Your task to perform on an android device: Search for Italian restaurants on Maps Image 0: 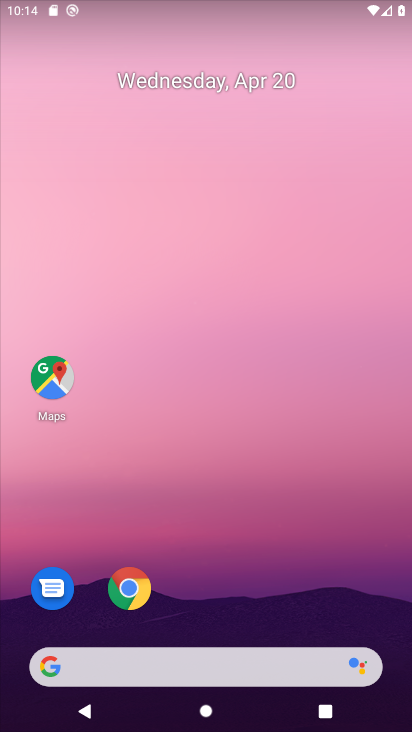
Step 0: click (45, 374)
Your task to perform on an android device: Search for Italian restaurants on Maps Image 1: 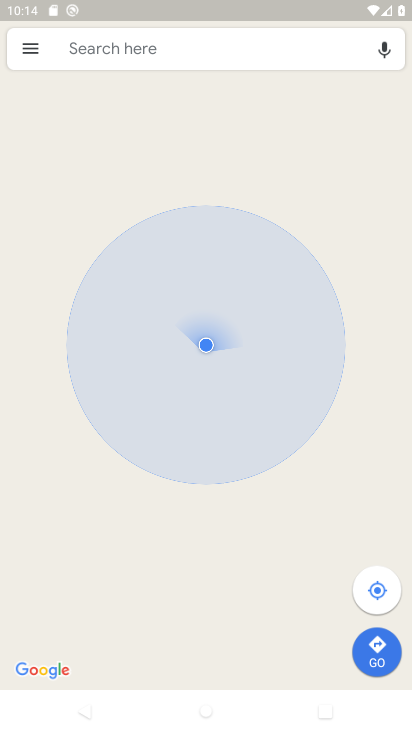
Step 1: click (100, 53)
Your task to perform on an android device: Search for Italian restaurants on Maps Image 2: 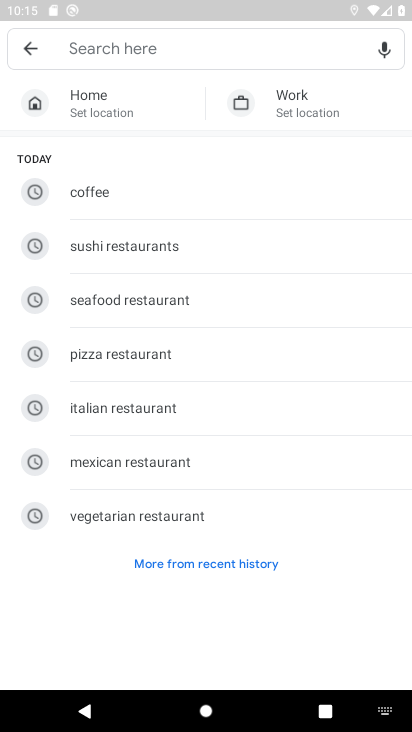
Step 2: click (121, 401)
Your task to perform on an android device: Search for Italian restaurants on Maps Image 3: 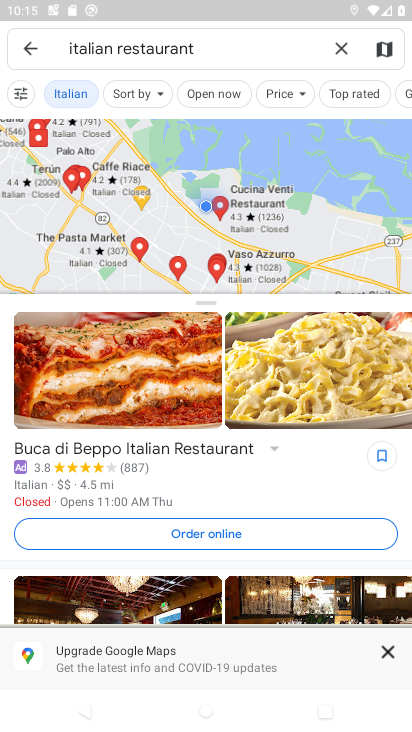
Step 3: task complete